Your task to perform on an android device: Go to calendar. Show me events next week Image 0: 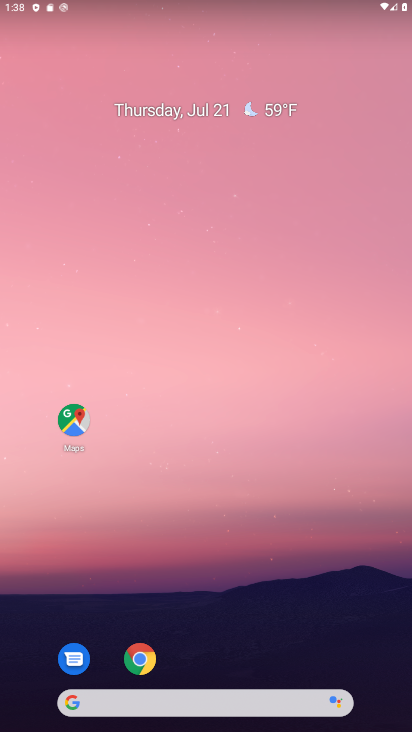
Step 0: drag from (194, 693) to (307, 17)
Your task to perform on an android device: Go to calendar. Show me events next week Image 1: 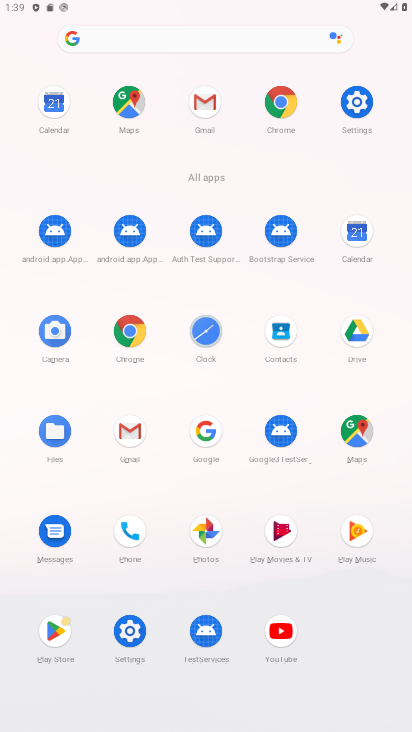
Step 1: click (350, 230)
Your task to perform on an android device: Go to calendar. Show me events next week Image 2: 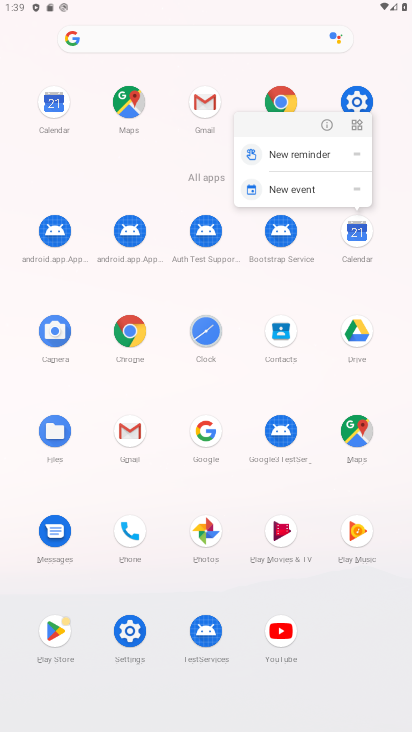
Step 2: click (360, 249)
Your task to perform on an android device: Go to calendar. Show me events next week Image 3: 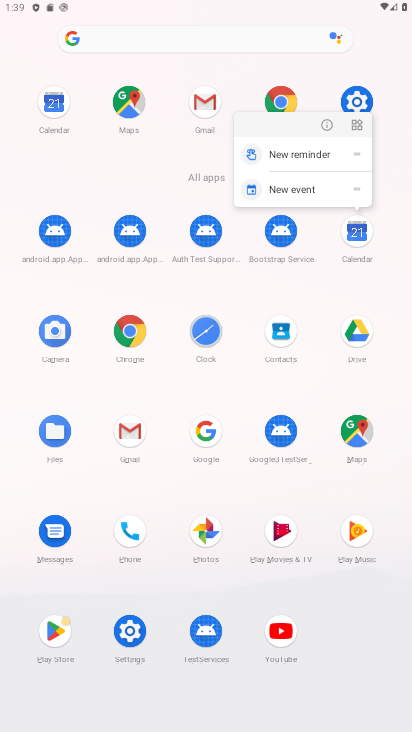
Step 3: click (355, 248)
Your task to perform on an android device: Go to calendar. Show me events next week Image 4: 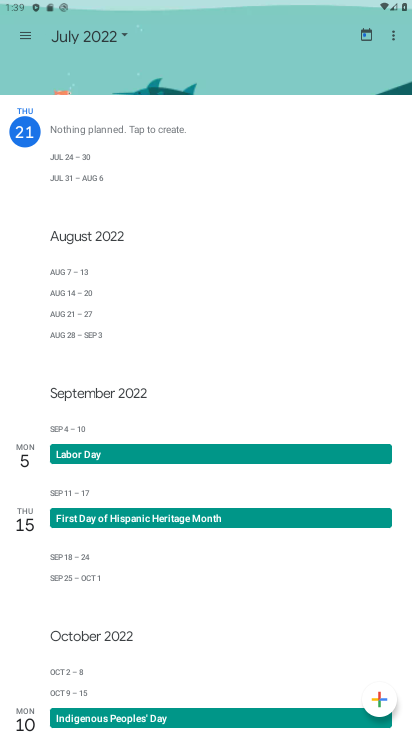
Step 4: click (14, 37)
Your task to perform on an android device: Go to calendar. Show me events next week Image 5: 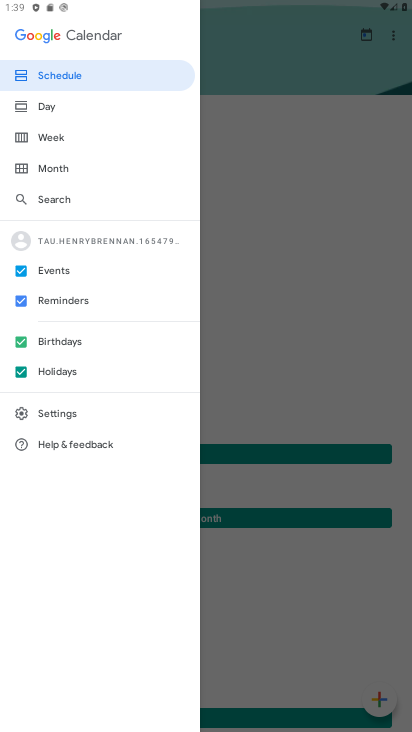
Step 5: click (69, 134)
Your task to perform on an android device: Go to calendar. Show me events next week Image 6: 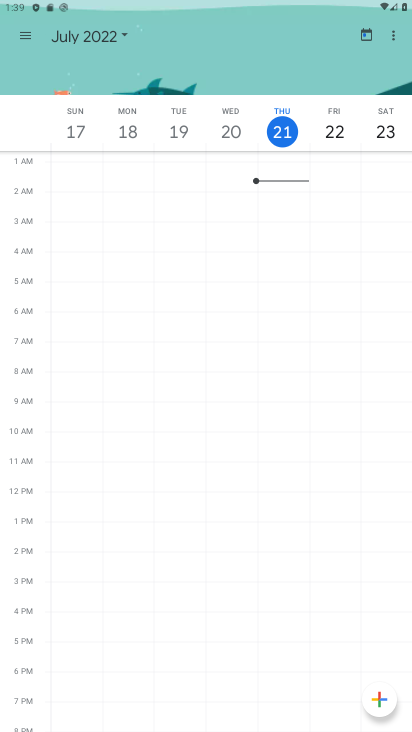
Step 6: task complete